Your task to perform on an android device: Do I have any events today? Image 0: 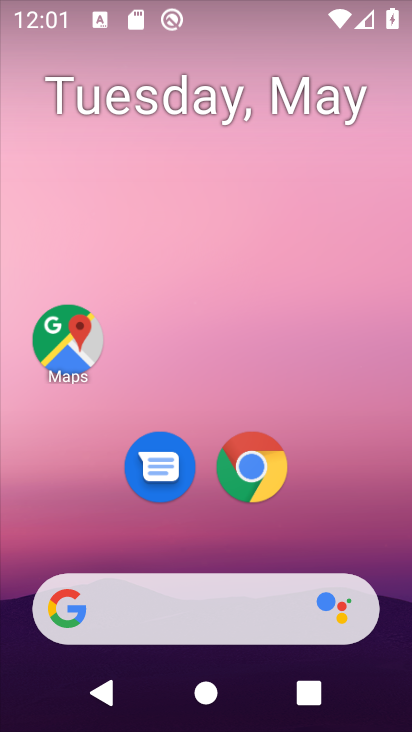
Step 0: click (162, 99)
Your task to perform on an android device: Do I have any events today? Image 1: 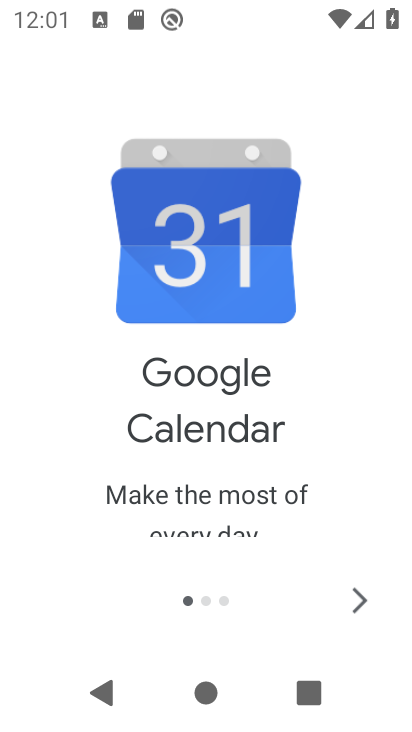
Step 1: click (364, 600)
Your task to perform on an android device: Do I have any events today? Image 2: 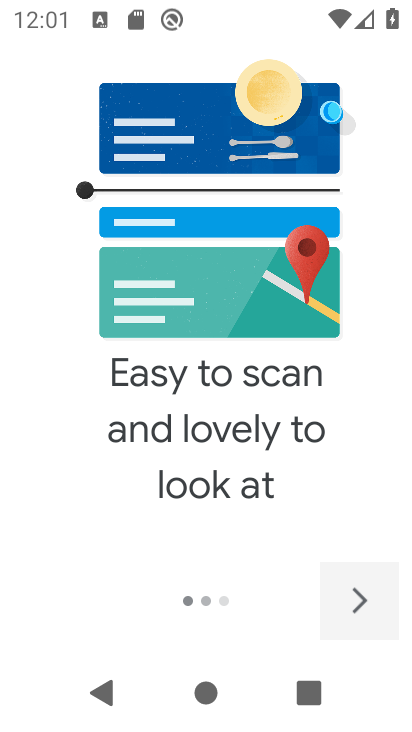
Step 2: click (364, 600)
Your task to perform on an android device: Do I have any events today? Image 3: 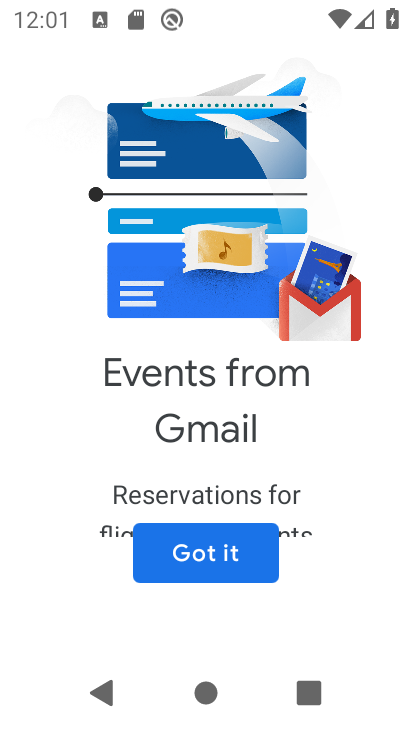
Step 3: click (238, 555)
Your task to perform on an android device: Do I have any events today? Image 4: 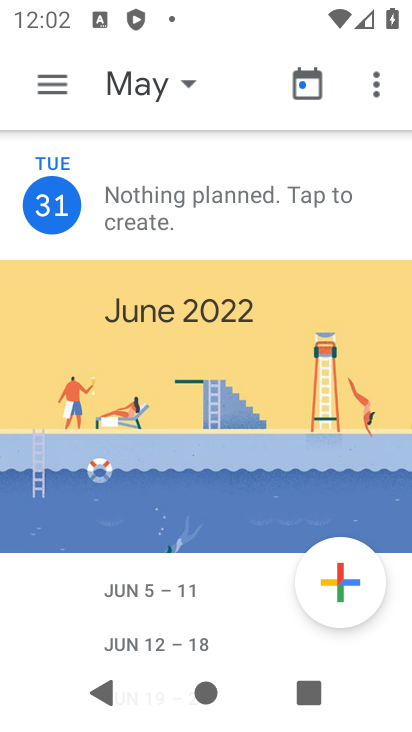
Step 4: click (63, 85)
Your task to perform on an android device: Do I have any events today? Image 5: 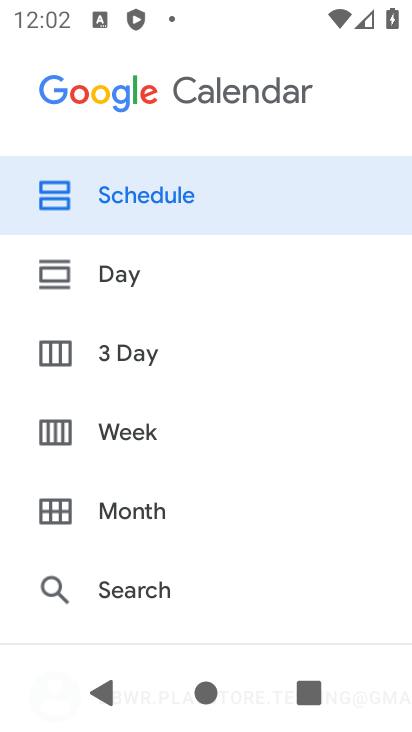
Step 5: click (258, 176)
Your task to perform on an android device: Do I have any events today? Image 6: 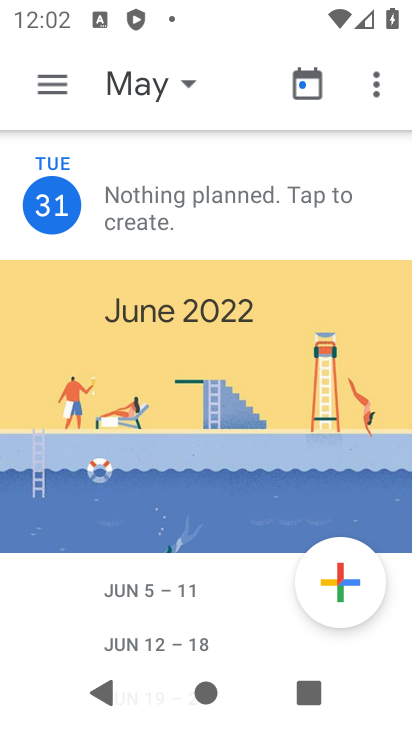
Step 6: click (49, 87)
Your task to perform on an android device: Do I have any events today? Image 7: 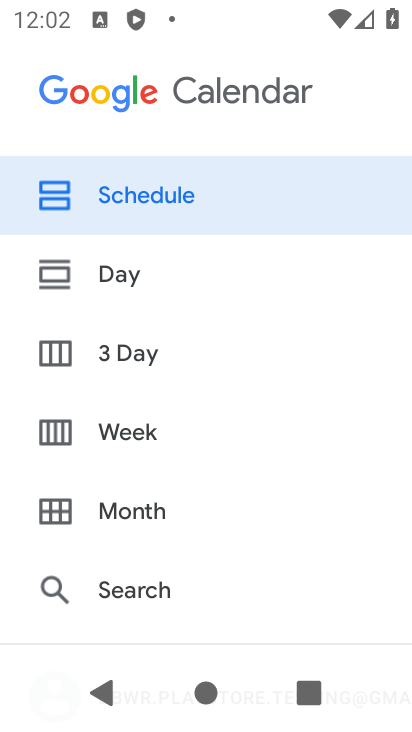
Step 7: drag from (233, 559) to (242, 111)
Your task to perform on an android device: Do I have any events today? Image 8: 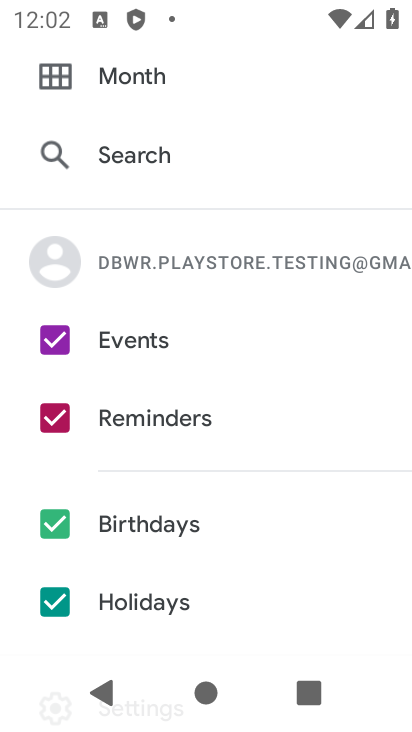
Step 8: click (54, 408)
Your task to perform on an android device: Do I have any events today? Image 9: 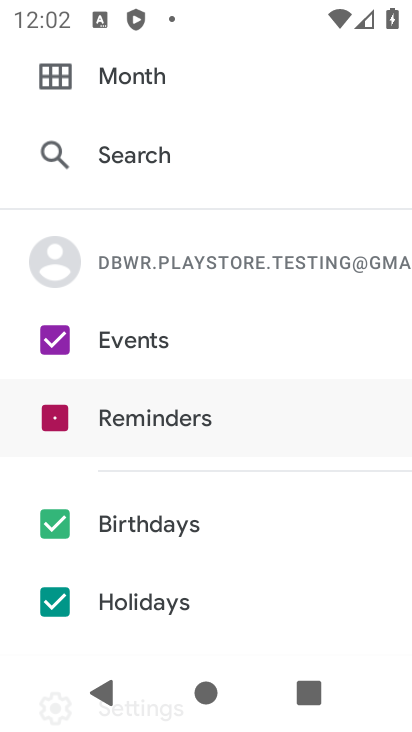
Step 9: click (58, 518)
Your task to perform on an android device: Do I have any events today? Image 10: 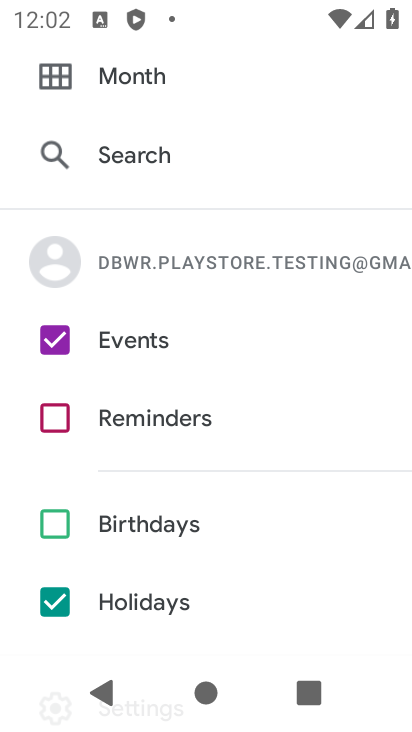
Step 10: click (53, 599)
Your task to perform on an android device: Do I have any events today? Image 11: 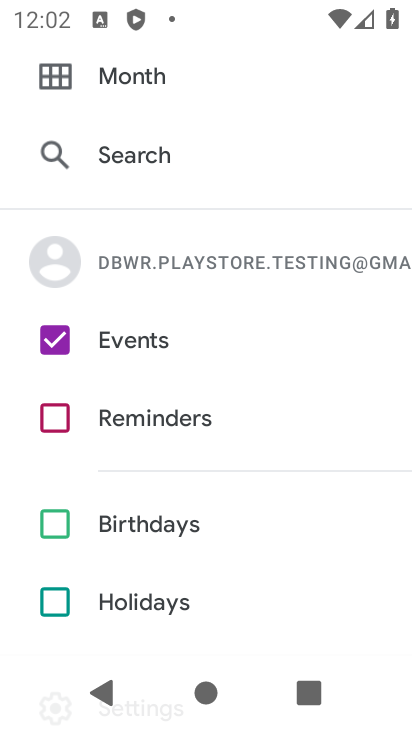
Step 11: drag from (298, 74) to (316, 608)
Your task to perform on an android device: Do I have any events today? Image 12: 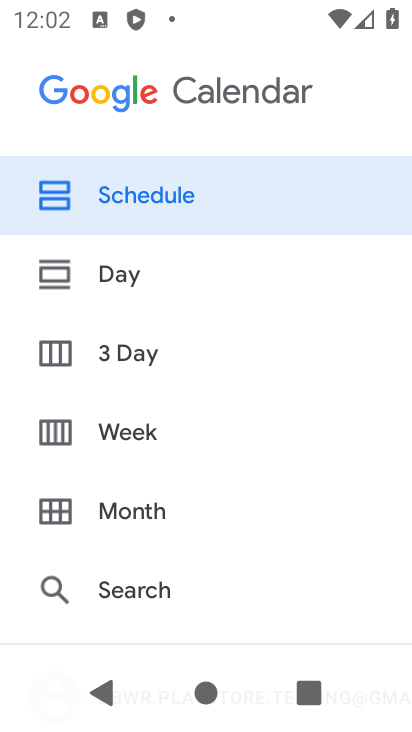
Step 12: click (205, 203)
Your task to perform on an android device: Do I have any events today? Image 13: 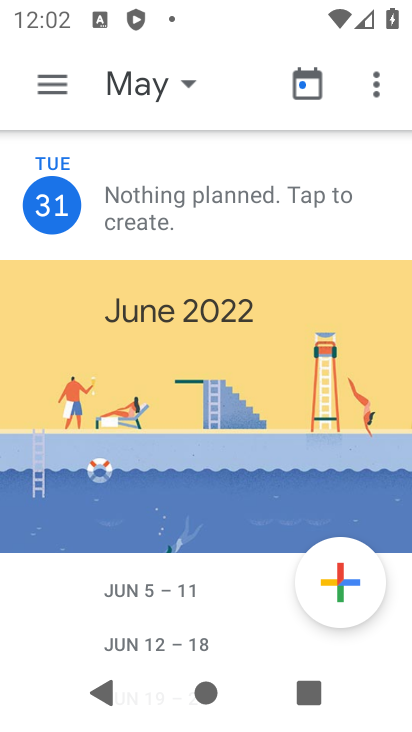
Step 13: task complete